Your task to perform on an android device: Open ESPN.com Image 0: 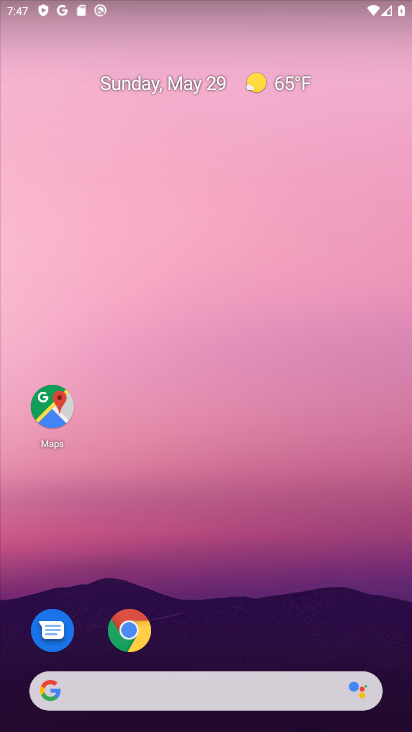
Step 0: click (130, 635)
Your task to perform on an android device: Open ESPN.com Image 1: 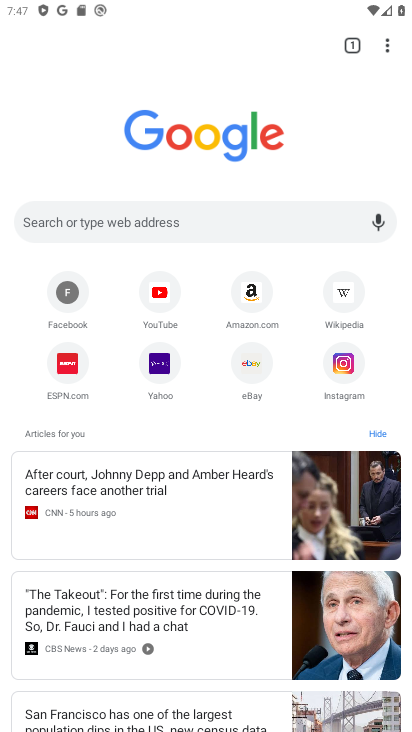
Step 1: click (62, 362)
Your task to perform on an android device: Open ESPN.com Image 2: 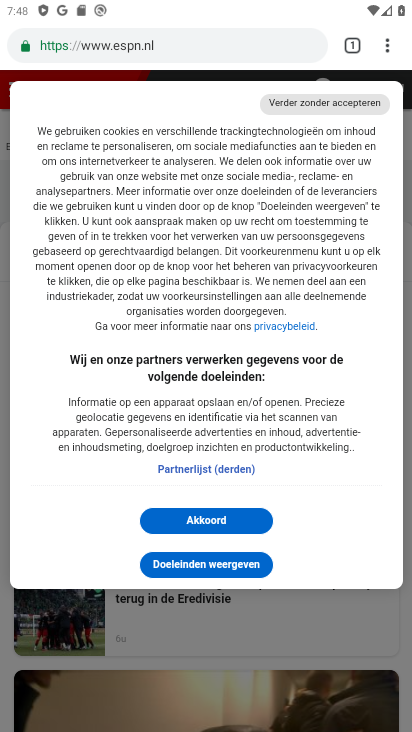
Step 2: click (224, 523)
Your task to perform on an android device: Open ESPN.com Image 3: 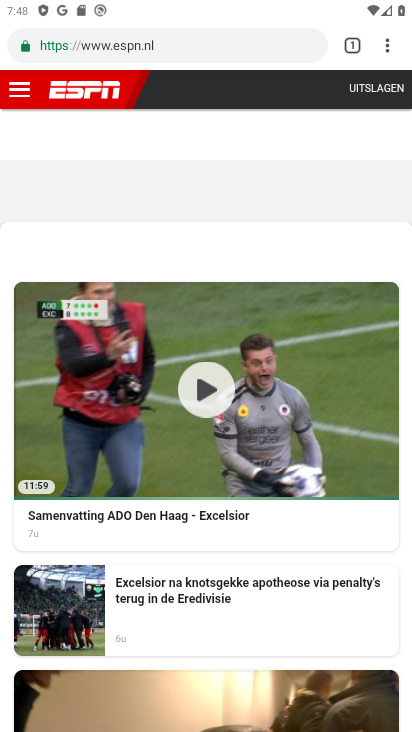
Step 3: task complete